Your task to perform on an android device: Open the Play Movies app and select the watchlist tab. Image 0: 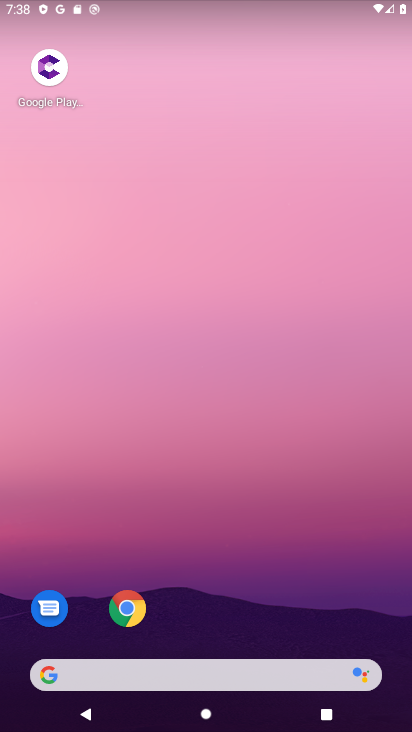
Step 0: drag from (176, 680) to (112, 16)
Your task to perform on an android device: Open the Play Movies app and select the watchlist tab. Image 1: 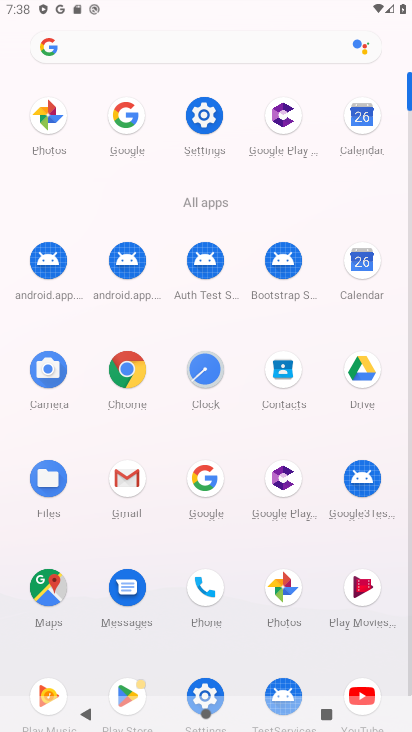
Step 1: click (363, 576)
Your task to perform on an android device: Open the Play Movies app and select the watchlist tab. Image 2: 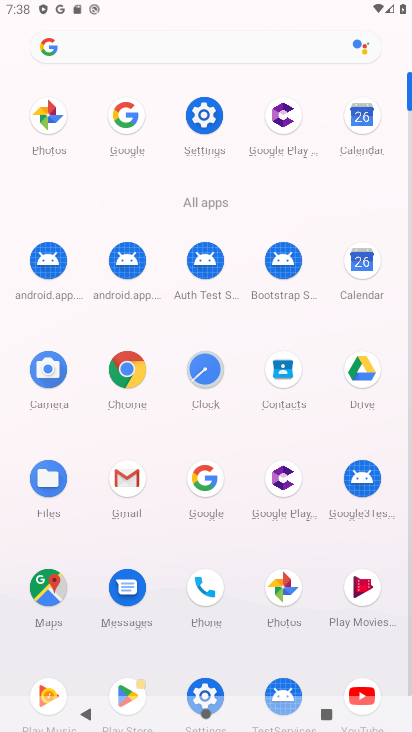
Step 2: click (363, 584)
Your task to perform on an android device: Open the Play Movies app and select the watchlist tab. Image 3: 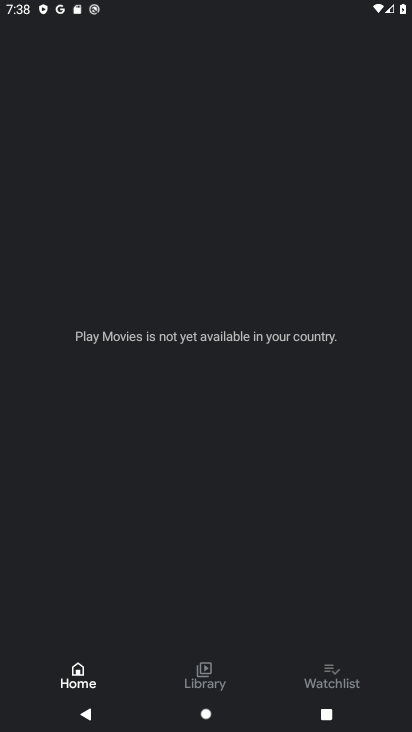
Step 3: click (322, 677)
Your task to perform on an android device: Open the Play Movies app and select the watchlist tab. Image 4: 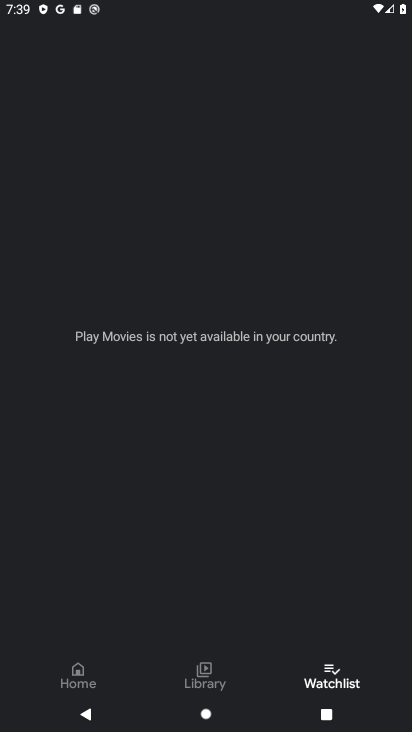
Step 4: task complete